Your task to perform on an android device: Go to Reddit.com Image 0: 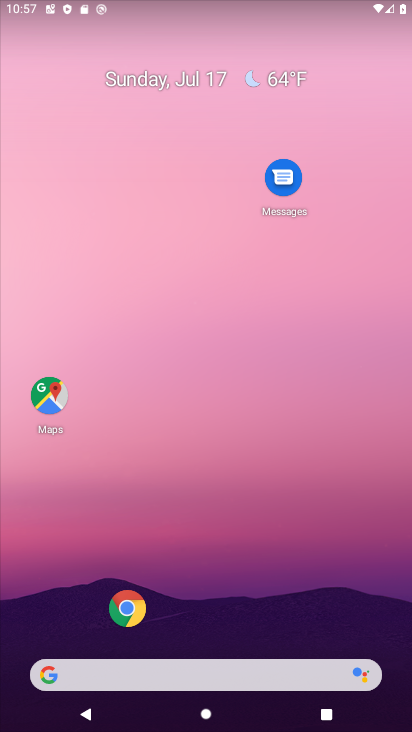
Step 0: click (122, 674)
Your task to perform on an android device: Go to Reddit.com Image 1: 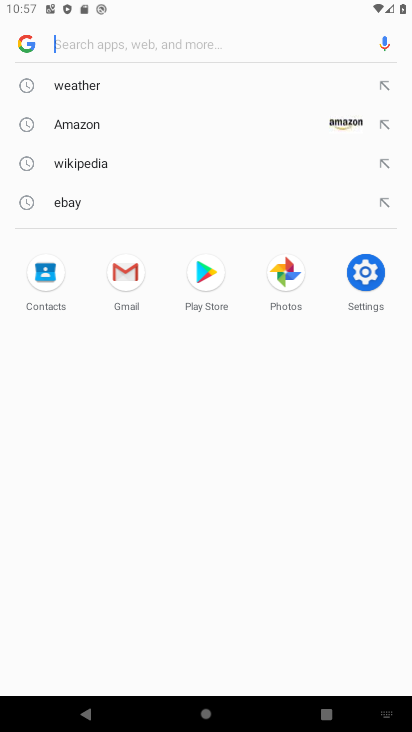
Step 1: type "Reddit.com"
Your task to perform on an android device: Go to Reddit.com Image 2: 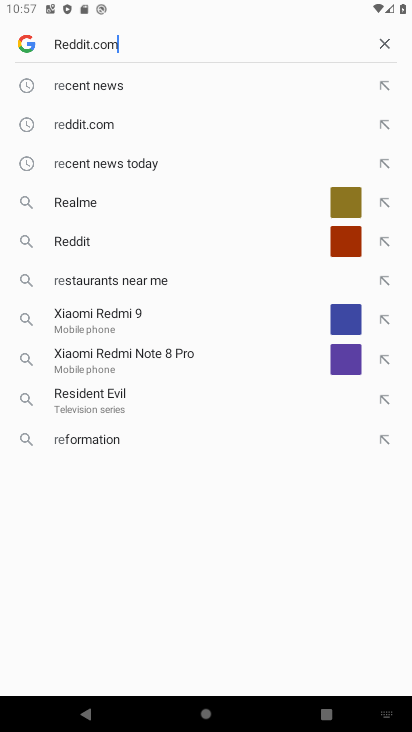
Step 2: type ""
Your task to perform on an android device: Go to Reddit.com Image 3: 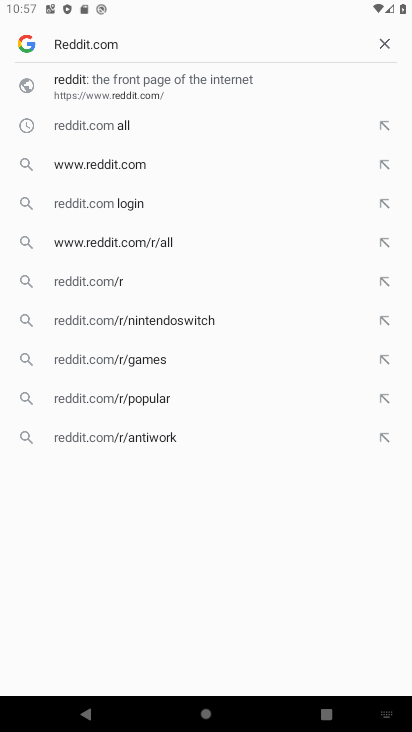
Step 3: type ""
Your task to perform on an android device: Go to Reddit.com Image 4: 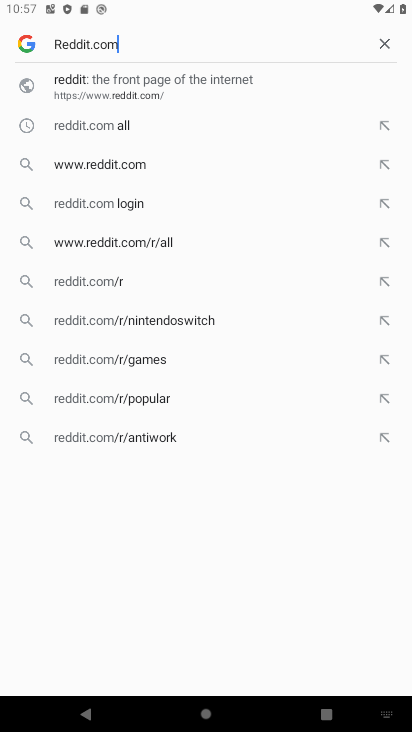
Step 4: type ""
Your task to perform on an android device: Go to Reddit.com Image 5: 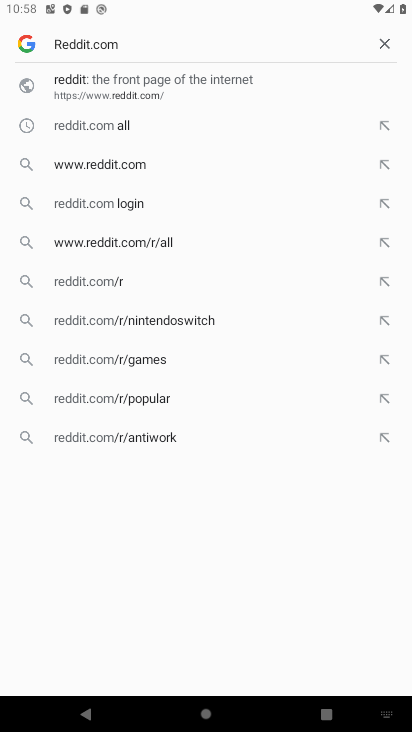
Step 5: task complete